Your task to perform on an android device: Open Yahoo.com Image 0: 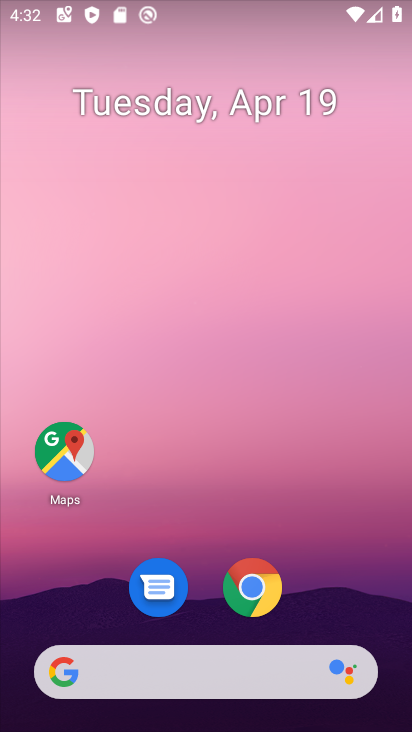
Step 0: drag from (310, 493) to (239, 42)
Your task to perform on an android device: Open Yahoo.com Image 1: 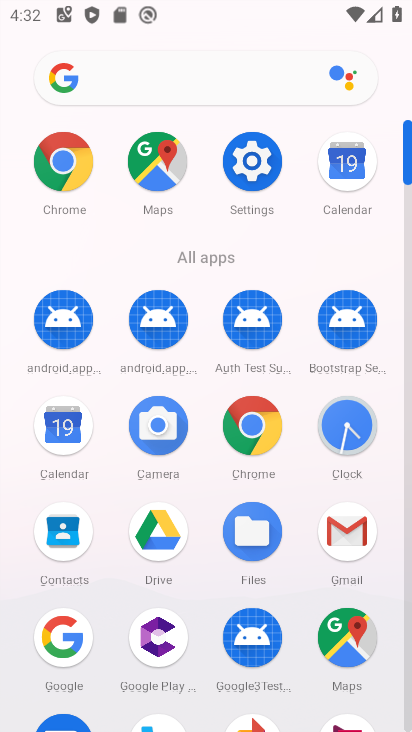
Step 1: click (63, 160)
Your task to perform on an android device: Open Yahoo.com Image 2: 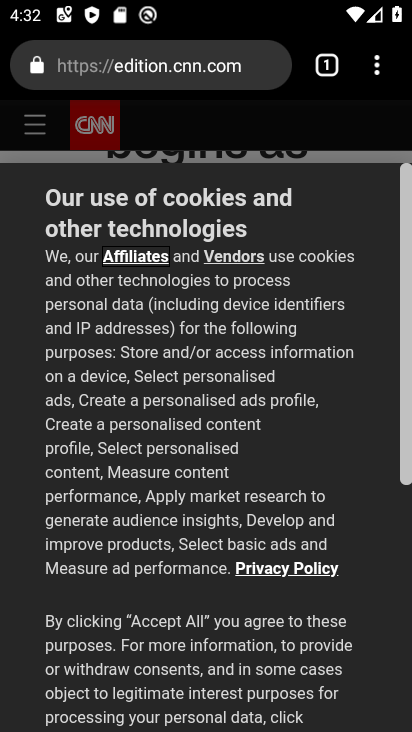
Step 2: click (174, 66)
Your task to perform on an android device: Open Yahoo.com Image 3: 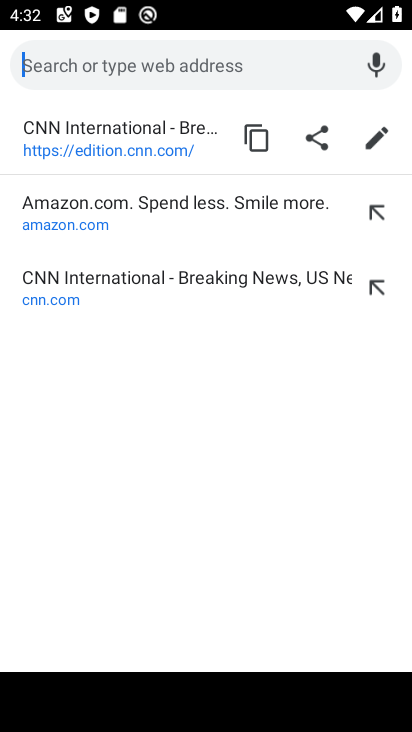
Step 3: type "Yahoo.com"
Your task to perform on an android device: Open Yahoo.com Image 4: 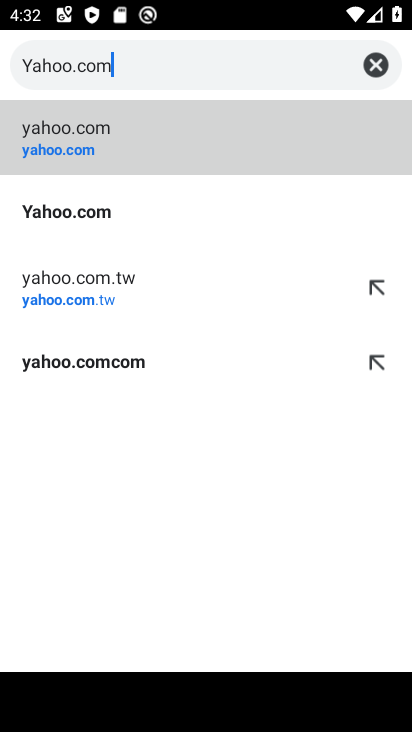
Step 4: click (113, 78)
Your task to perform on an android device: Open Yahoo.com Image 5: 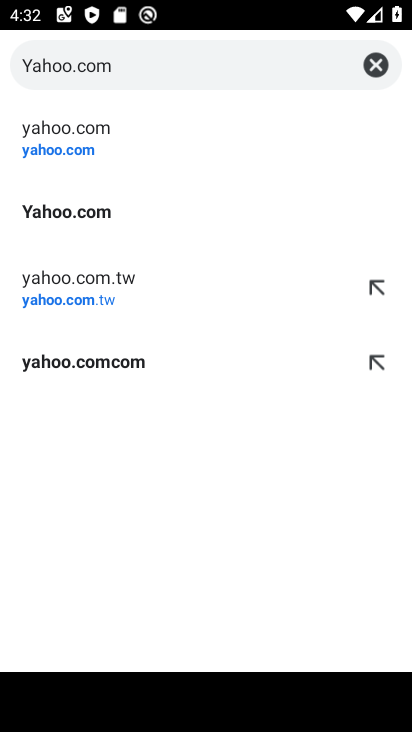
Step 5: click (133, 125)
Your task to perform on an android device: Open Yahoo.com Image 6: 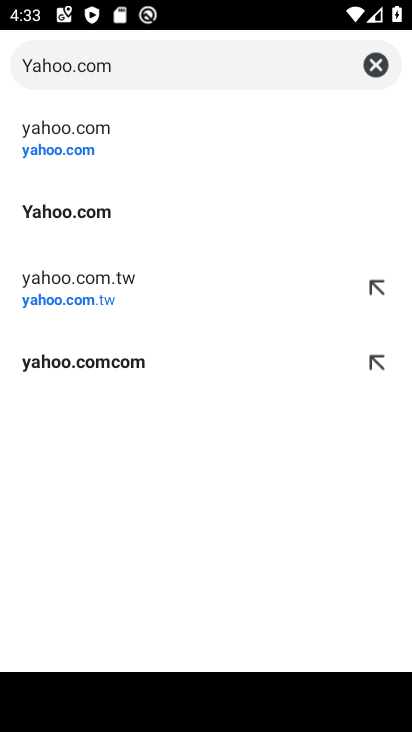
Step 6: click (117, 133)
Your task to perform on an android device: Open Yahoo.com Image 7: 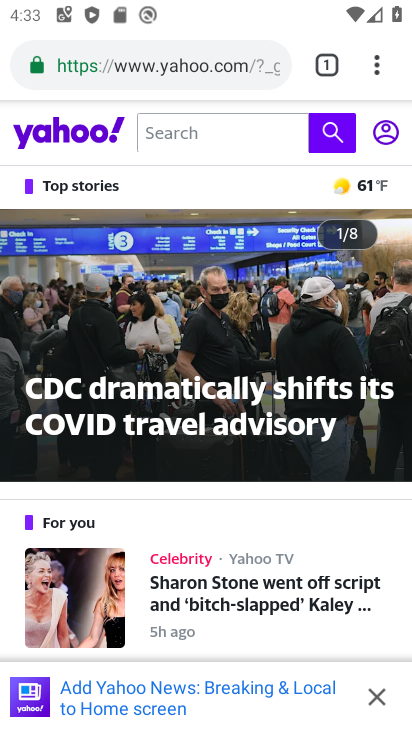
Step 7: task complete